Your task to perform on an android device: Show me the alarms in the clock app Image 0: 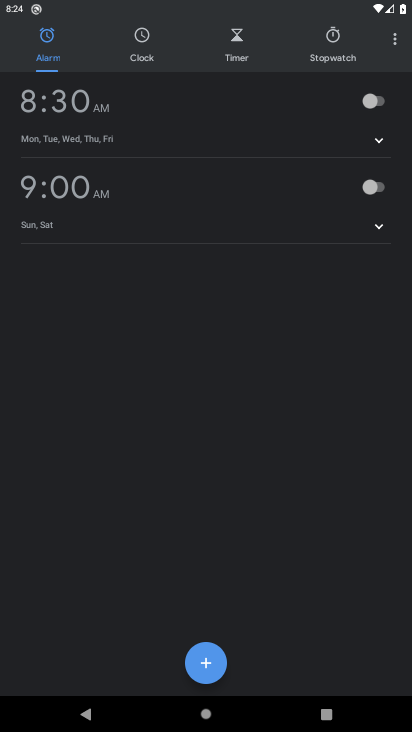
Step 0: click (364, 106)
Your task to perform on an android device: Show me the alarms in the clock app Image 1: 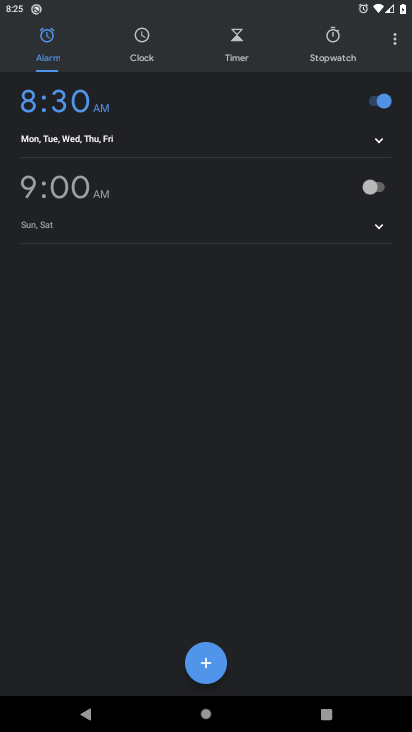
Step 1: task complete